Your task to perform on an android device: toggle priority inbox in the gmail app Image 0: 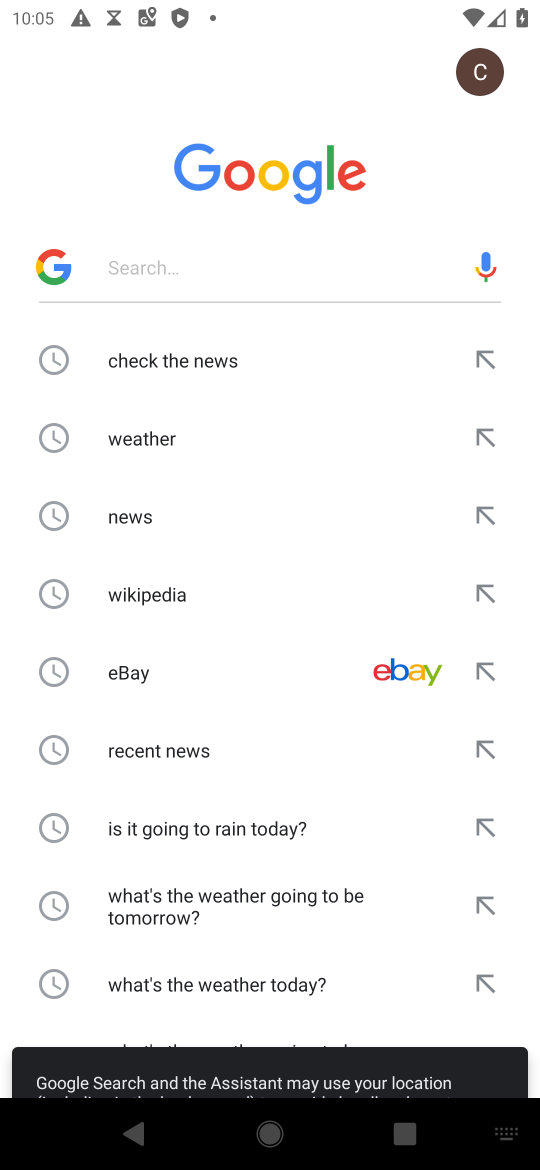
Step 0: press home button
Your task to perform on an android device: toggle priority inbox in the gmail app Image 1: 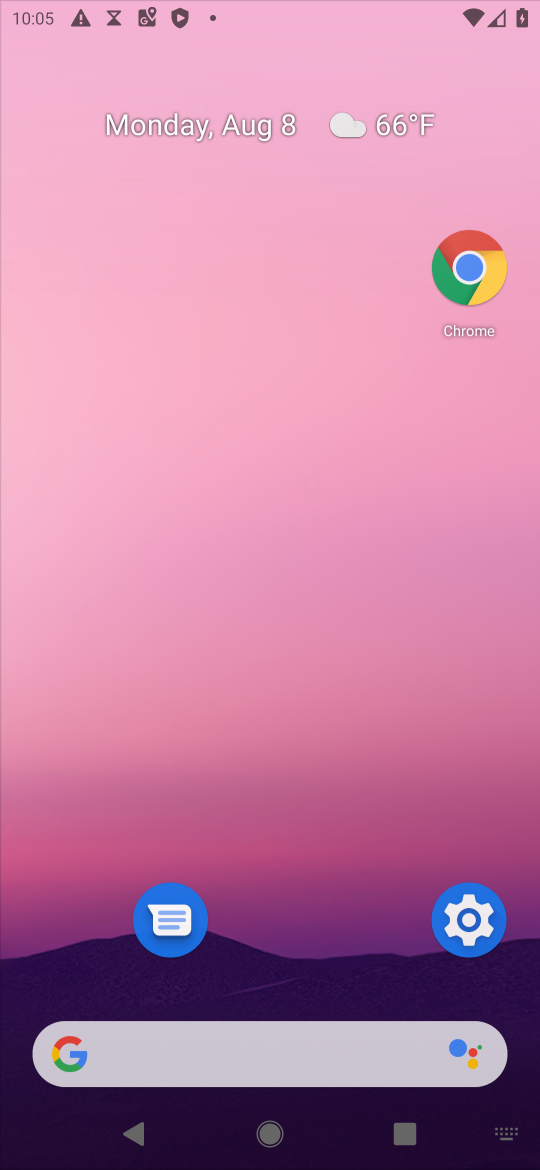
Step 1: drag from (313, 867) to (264, 390)
Your task to perform on an android device: toggle priority inbox in the gmail app Image 2: 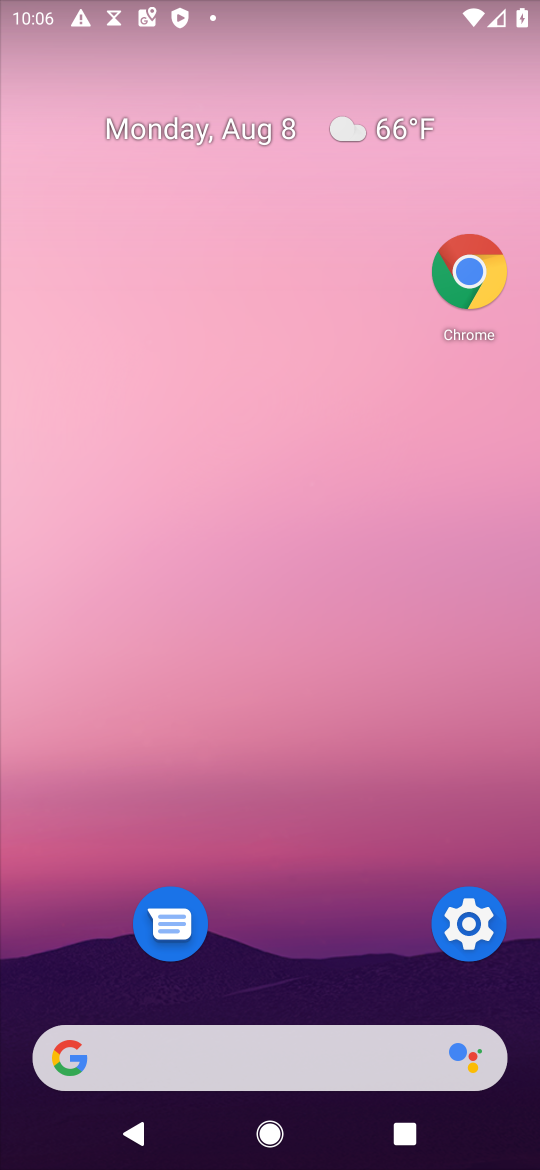
Step 2: drag from (317, 912) to (230, 120)
Your task to perform on an android device: toggle priority inbox in the gmail app Image 3: 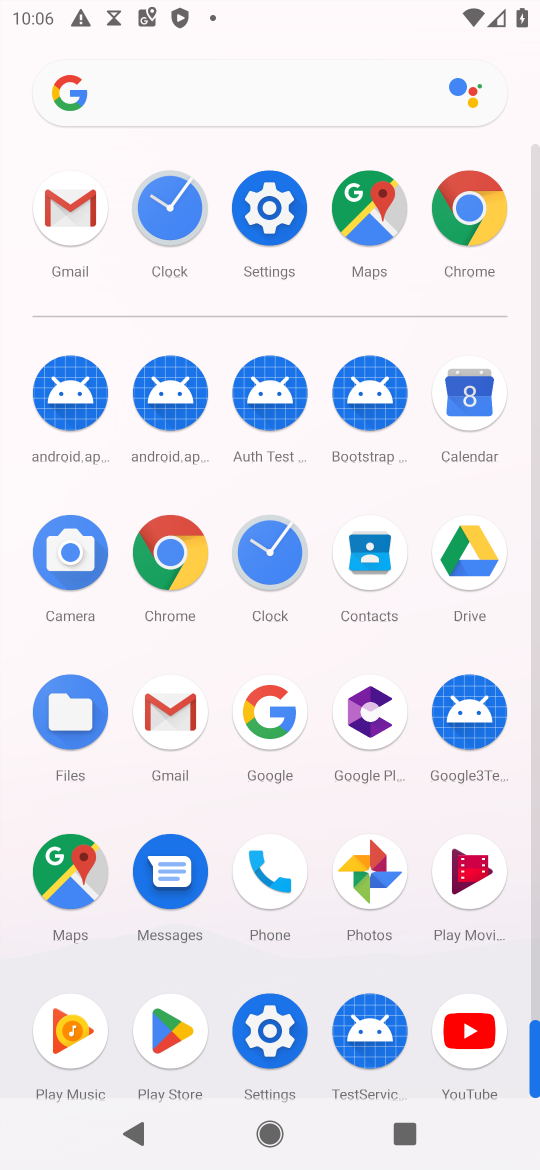
Step 3: click (91, 204)
Your task to perform on an android device: toggle priority inbox in the gmail app Image 4: 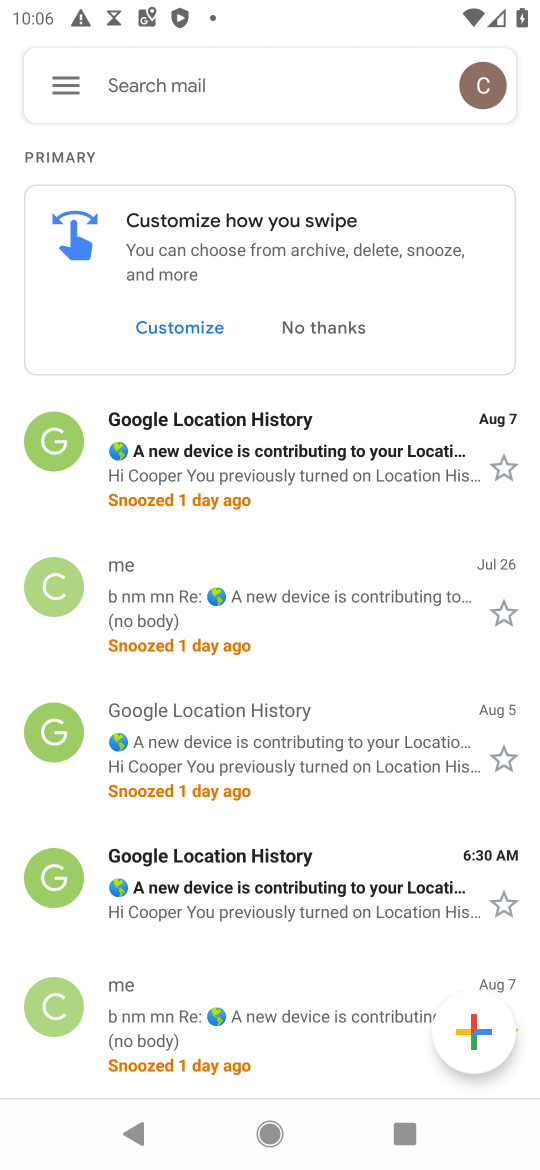
Step 4: click (67, 88)
Your task to perform on an android device: toggle priority inbox in the gmail app Image 5: 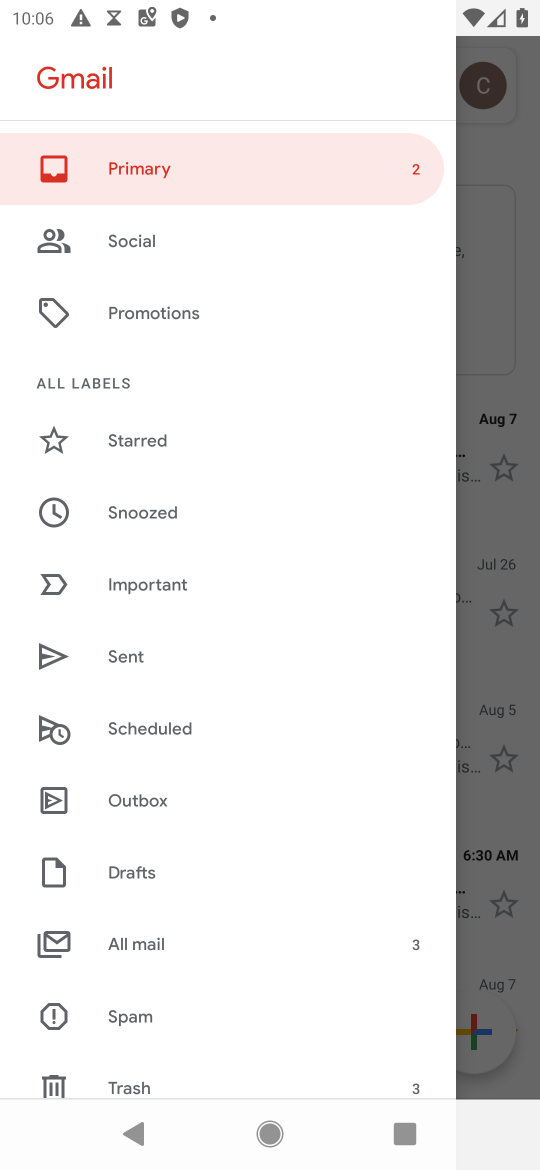
Step 5: drag from (140, 1041) to (242, 561)
Your task to perform on an android device: toggle priority inbox in the gmail app Image 6: 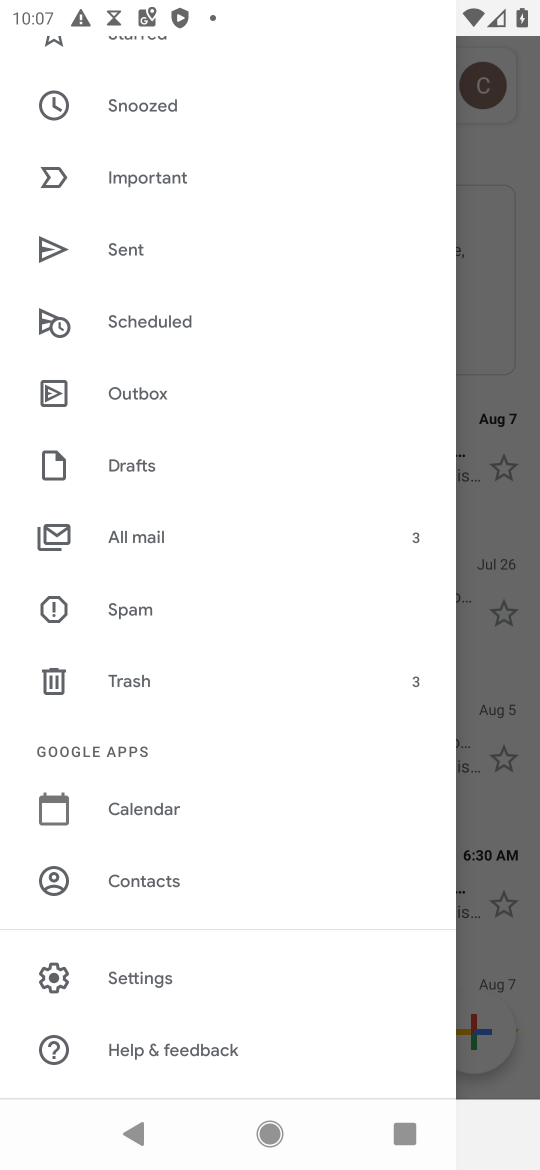
Step 6: click (109, 978)
Your task to perform on an android device: toggle priority inbox in the gmail app Image 7: 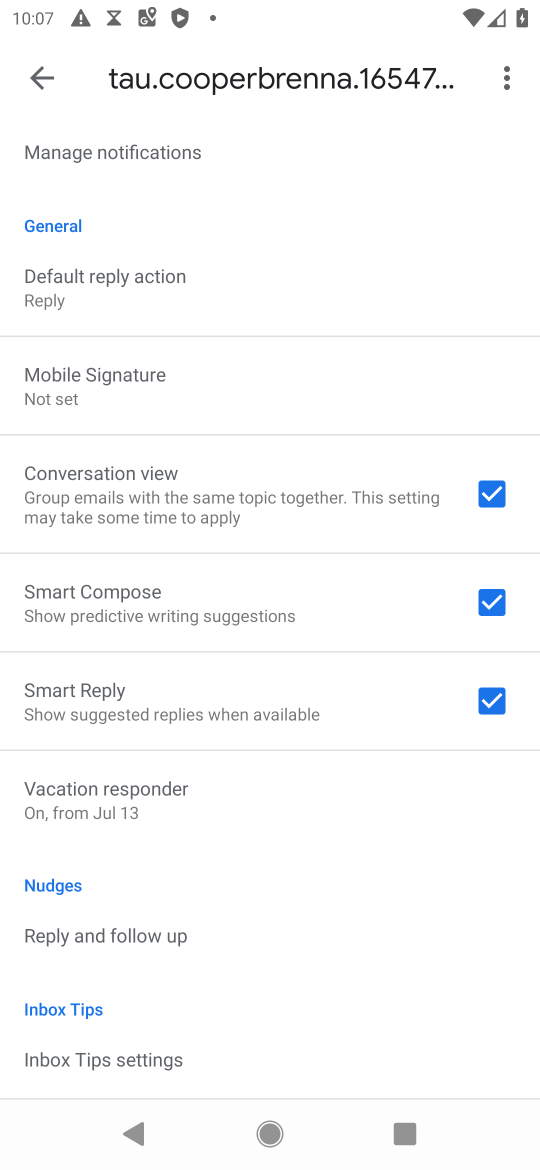
Step 7: drag from (136, 283) to (125, 1115)
Your task to perform on an android device: toggle priority inbox in the gmail app Image 8: 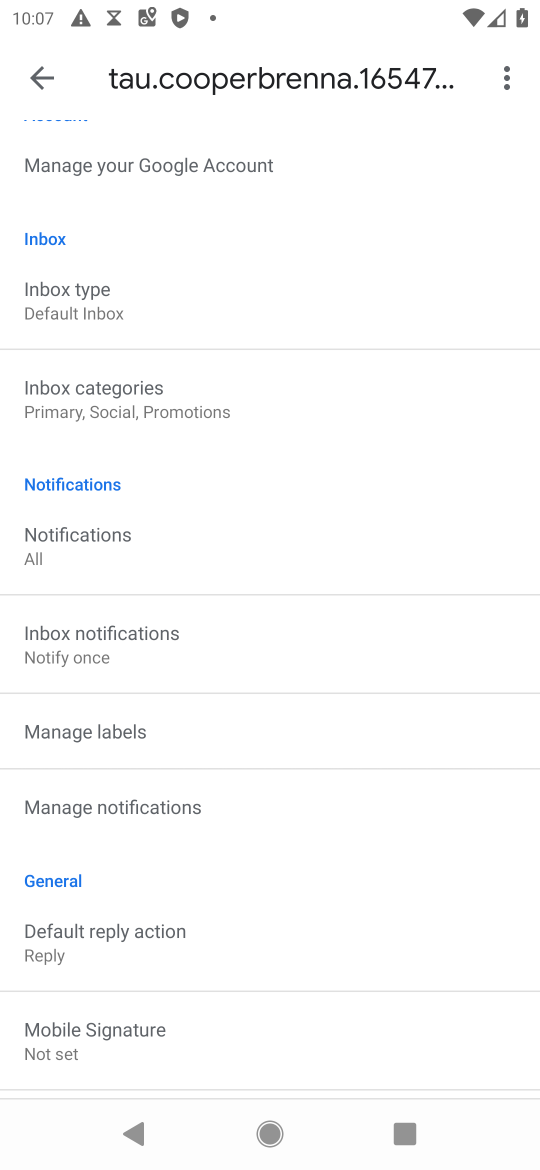
Step 8: click (89, 323)
Your task to perform on an android device: toggle priority inbox in the gmail app Image 9: 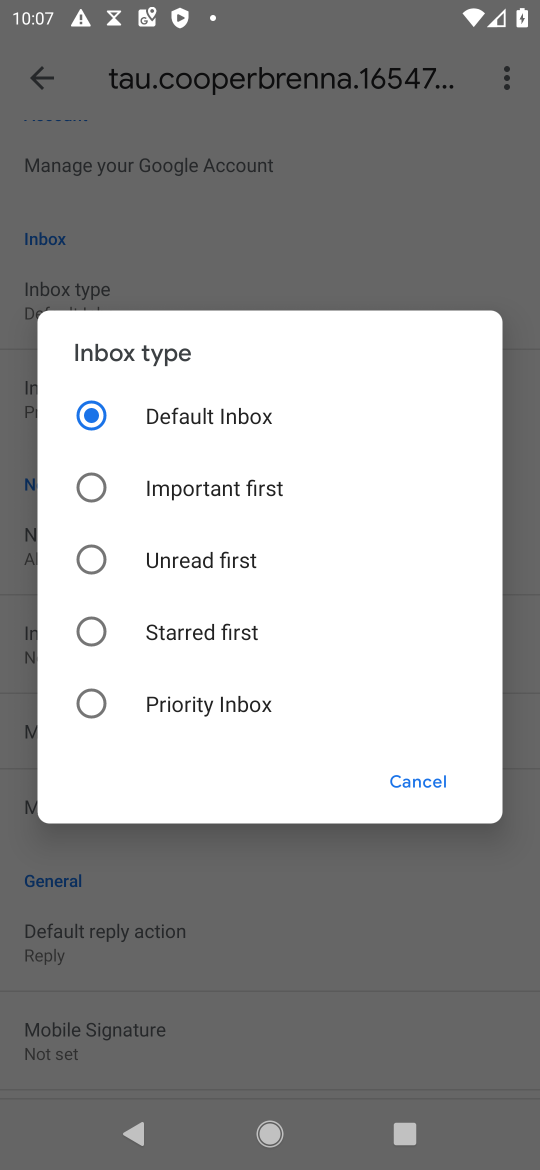
Step 9: click (122, 699)
Your task to perform on an android device: toggle priority inbox in the gmail app Image 10: 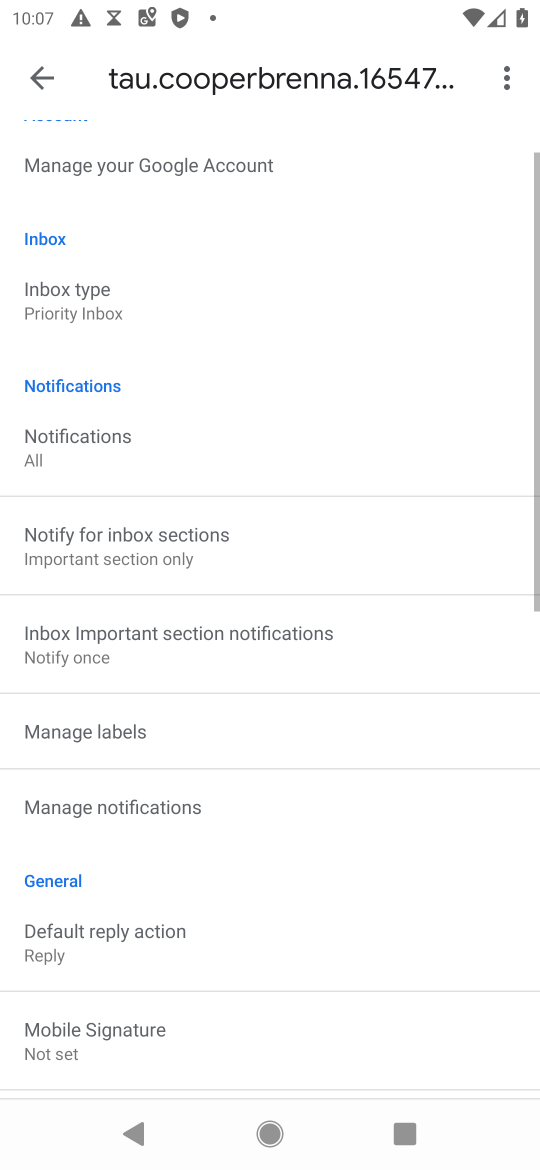
Step 10: task complete